Your task to perform on an android device: Go to Amazon Image 0: 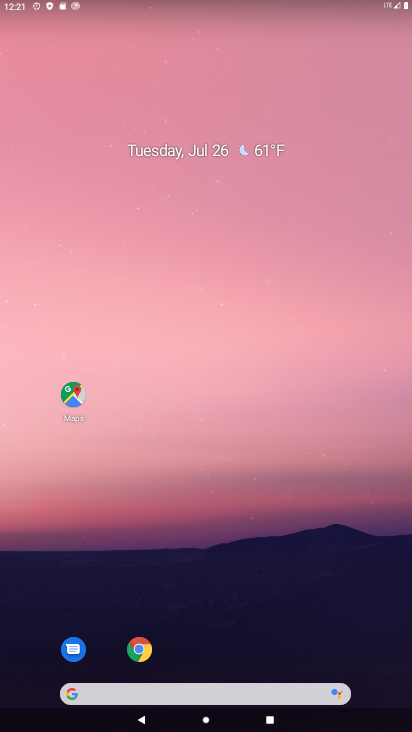
Step 0: drag from (229, 692) to (271, 18)
Your task to perform on an android device: Go to Amazon Image 1: 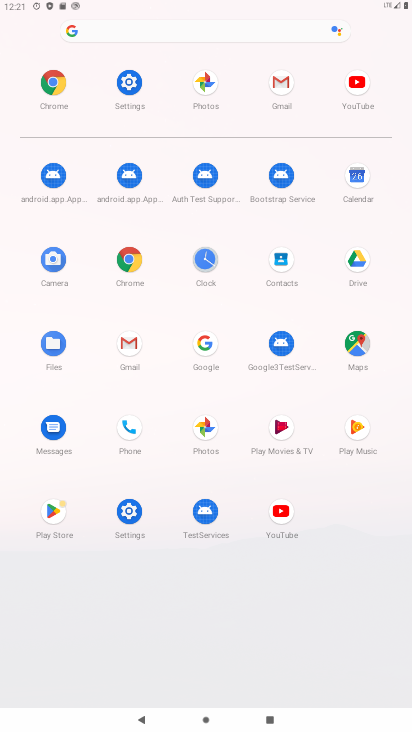
Step 1: click (133, 272)
Your task to perform on an android device: Go to Amazon Image 2: 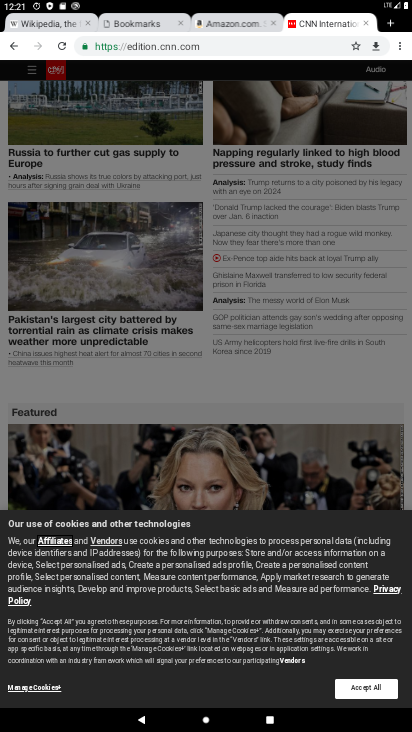
Step 2: click (383, 22)
Your task to perform on an android device: Go to Amazon Image 3: 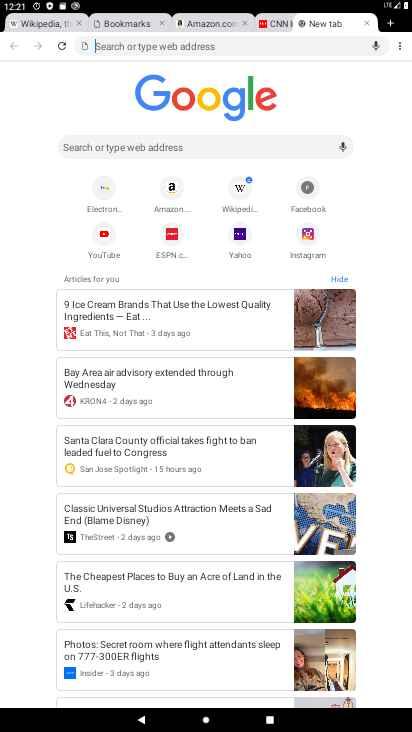
Step 3: click (174, 188)
Your task to perform on an android device: Go to Amazon Image 4: 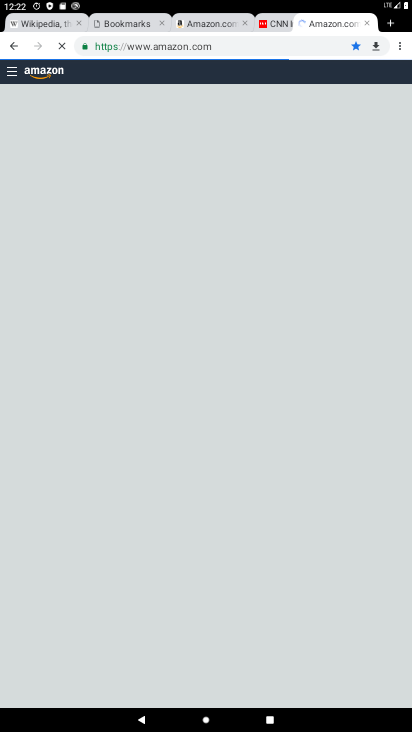
Step 4: task complete